Your task to perform on an android device: star an email in the gmail app Image 0: 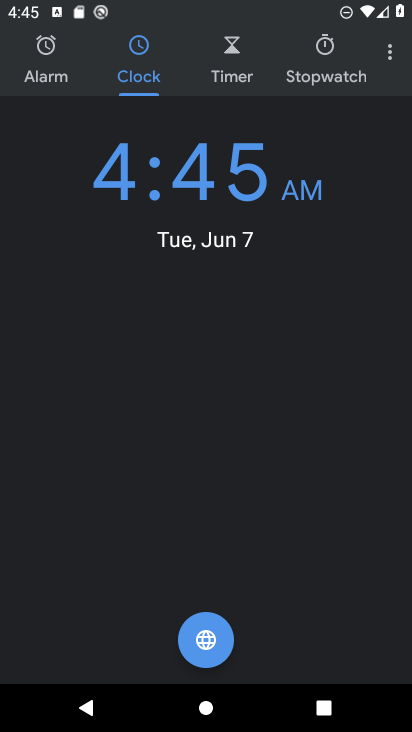
Step 0: press home button
Your task to perform on an android device: star an email in the gmail app Image 1: 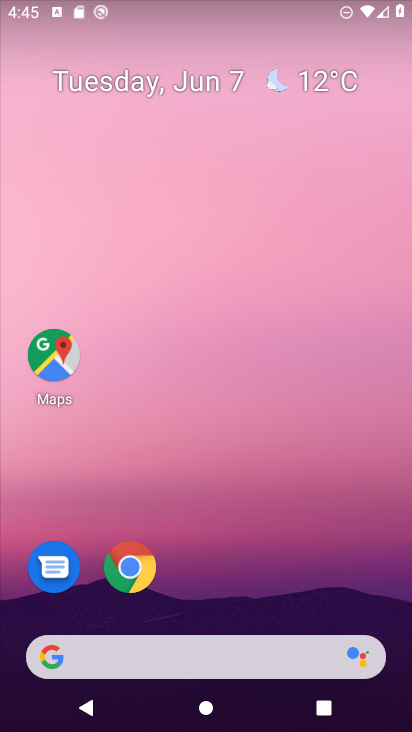
Step 1: drag from (285, 665) to (273, 104)
Your task to perform on an android device: star an email in the gmail app Image 2: 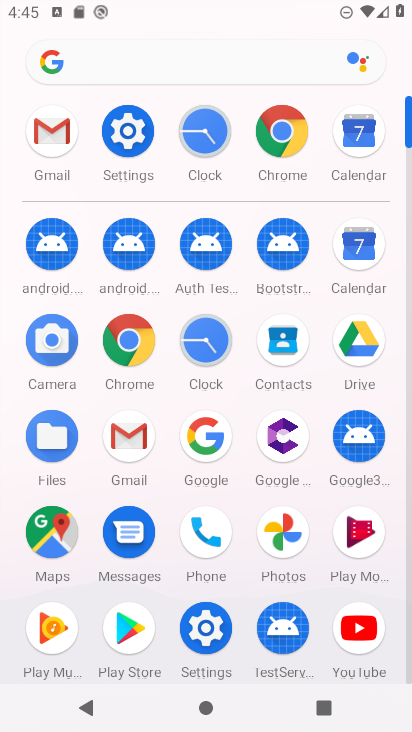
Step 2: click (121, 432)
Your task to perform on an android device: star an email in the gmail app Image 3: 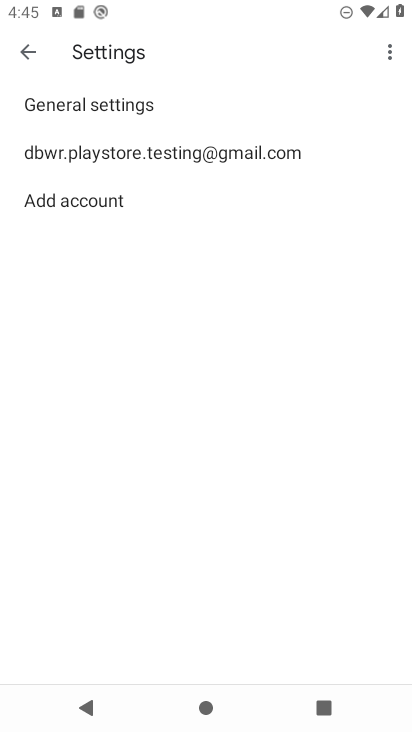
Step 3: press back button
Your task to perform on an android device: star an email in the gmail app Image 4: 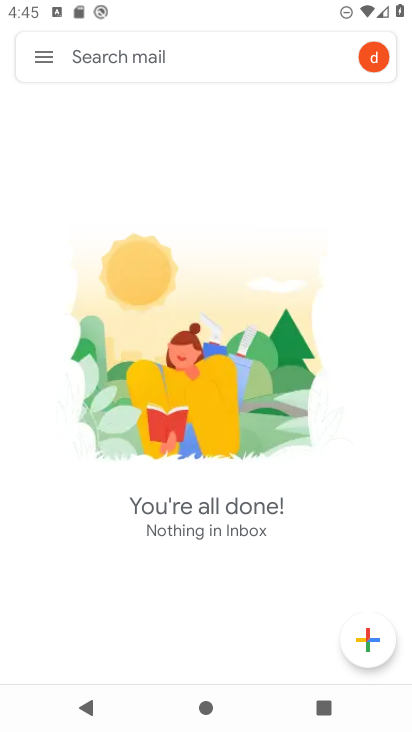
Step 4: click (47, 52)
Your task to perform on an android device: star an email in the gmail app Image 5: 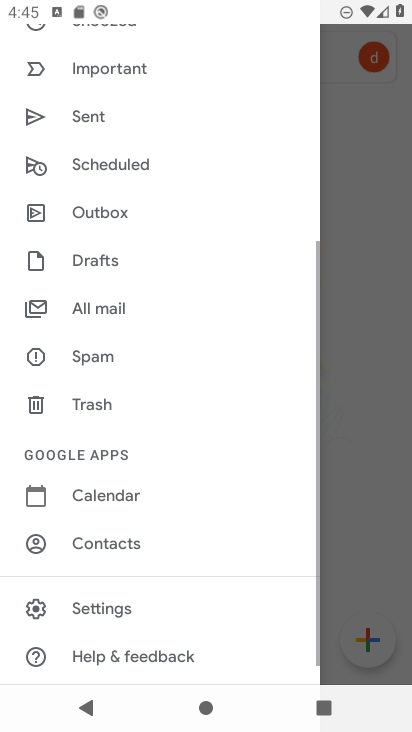
Step 5: drag from (119, 137) to (149, 397)
Your task to perform on an android device: star an email in the gmail app Image 6: 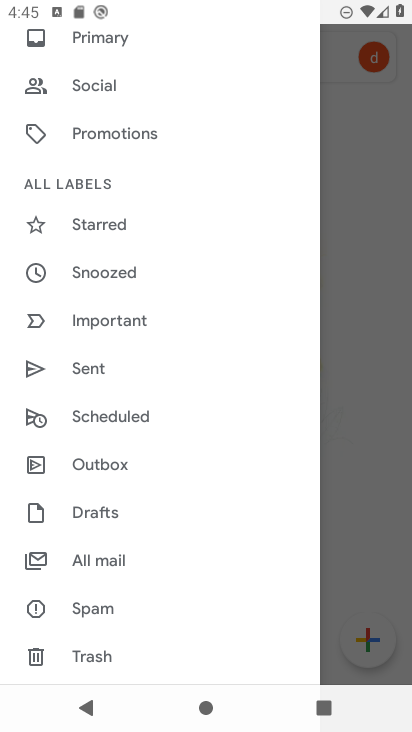
Step 6: click (121, 226)
Your task to perform on an android device: star an email in the gmail app Image 7: 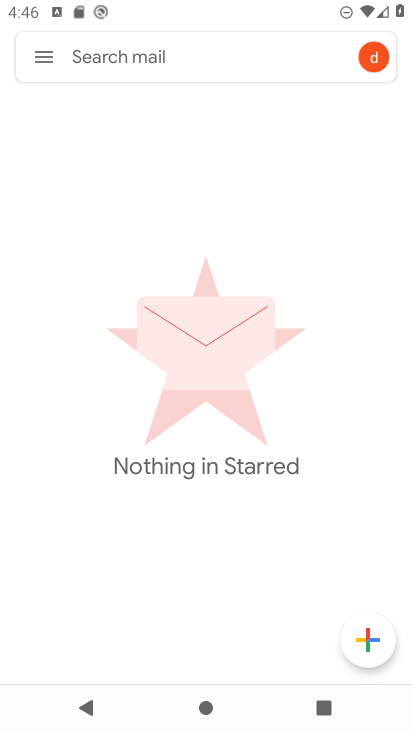
Step 7: task complete